Your task to perform on an android device: turn on improve location accuracy Image 0: 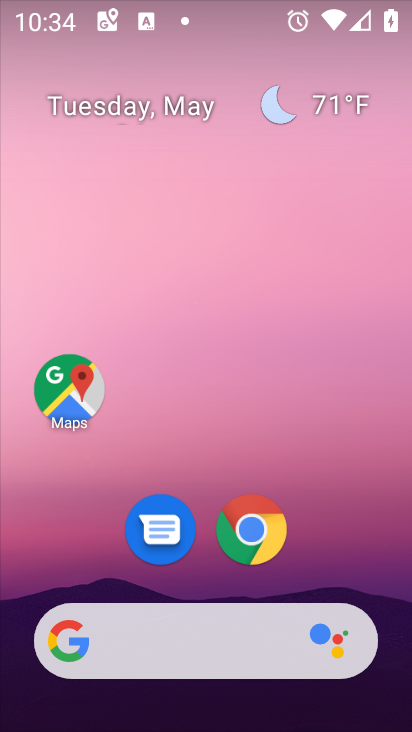
Step 0: drag from (307, 650) to (342, 123)
Your task to perform on an android device: turn on improve location accuracy Image 1: 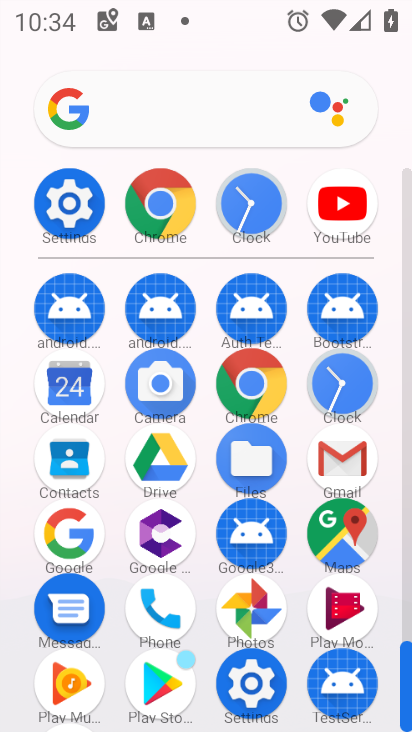
Step 1: click (76, 225)
Your task to perform on an android device: turn on improve location accuracy Image 2: 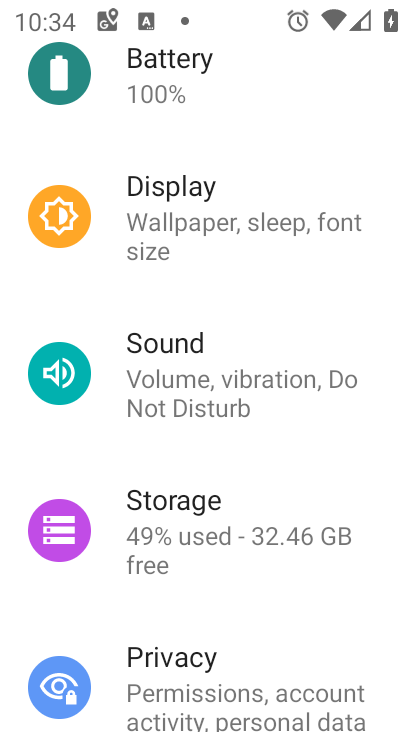
Step 2: drag from (243, 679) to (288, 165)
Your task to perform on an android device: turn on improve location accuracy Image 3: 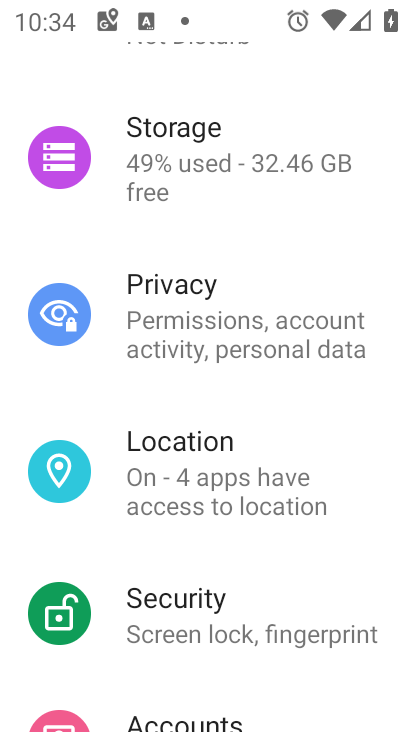
Step 3: click (246, 479)
Your task to perform on an android device: turn on improve location accuracy Image 4: 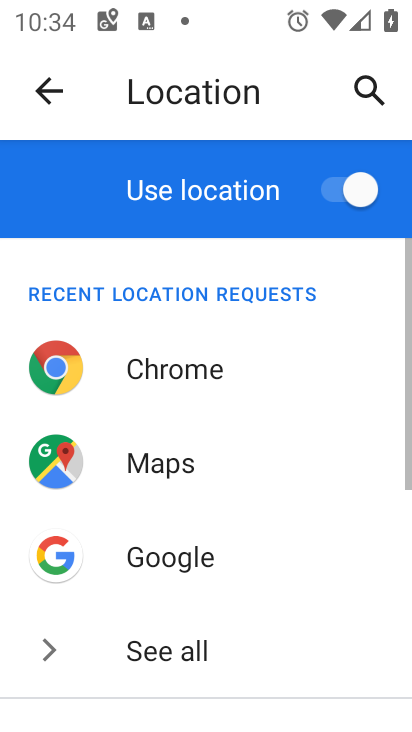
Step 4: drag from (249, 610) to (263, 450)
Your task to perform on an android device: turn on improve location accuracy Image 5: 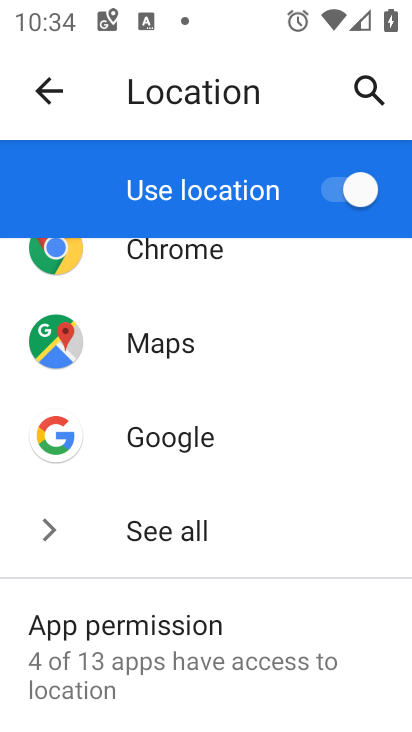
Step 5: drag from (249, 631) to (270, 353)
Your task to perform on an android device: turn on improve location accuracy Image 6: 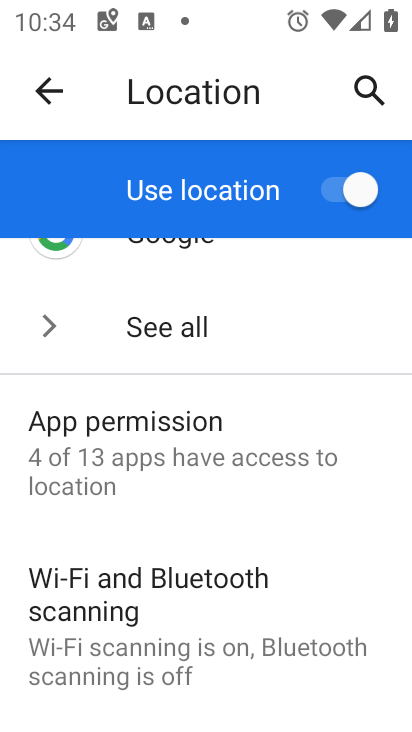
Step 6: drag from (260, 597) to (283, 362)
Your task to perform on an android device: turn on improve location accuracy Image 7: 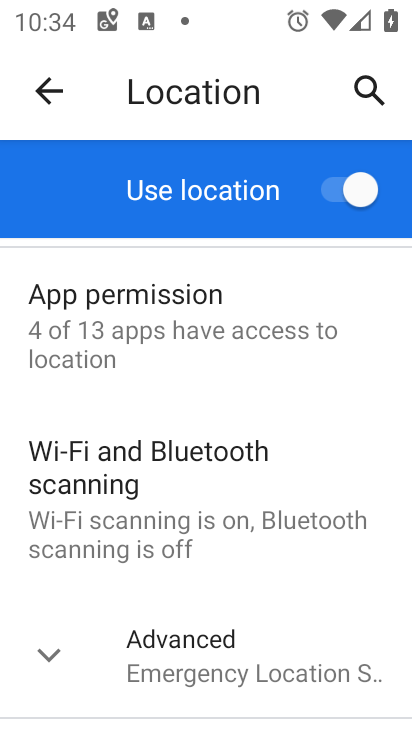
Step 7: click (247, 660)
Your task to perform on an android device: turn on improve location accuracy Image 8: 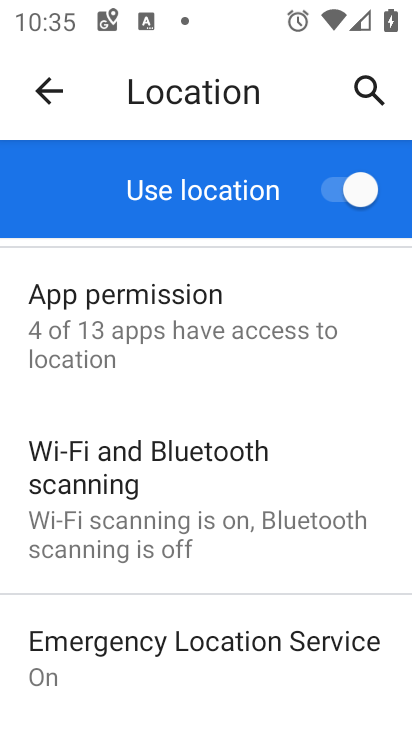
Step 8: drag from (247, 660) to (211, 377)
Your task to perform on an android device: turn on improve location accuracy Image 9: 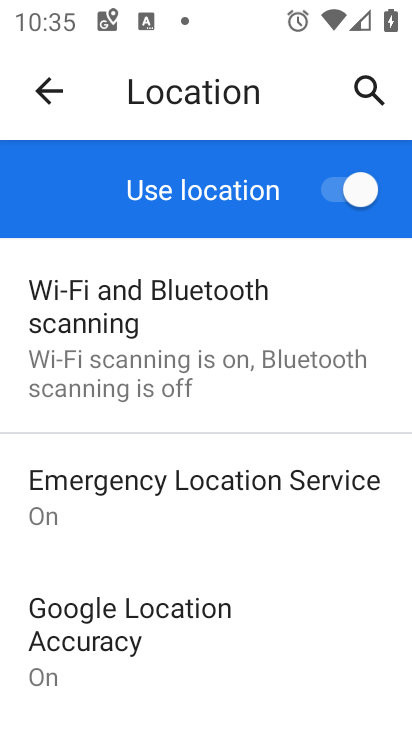
Step 9: drag from (186, 588) to (174, 433)
Your task to perform on an android device: turn on improve location accuracy Image 10: 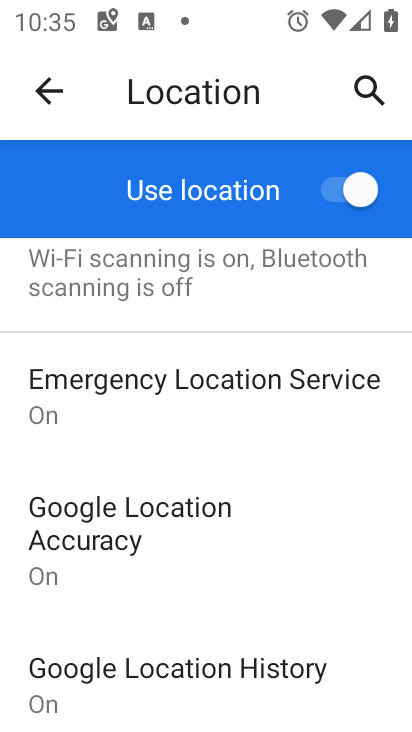
Step 10: click (203, 537)
Your task to perform on an android device: turn on improve location accuracy Image 11: 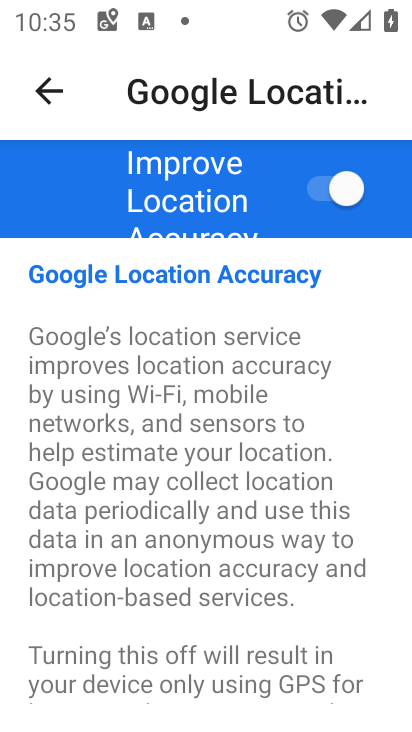
Step 11: task complete